Your task to perform on an android device: snooze an email in the gmail app Image 0: 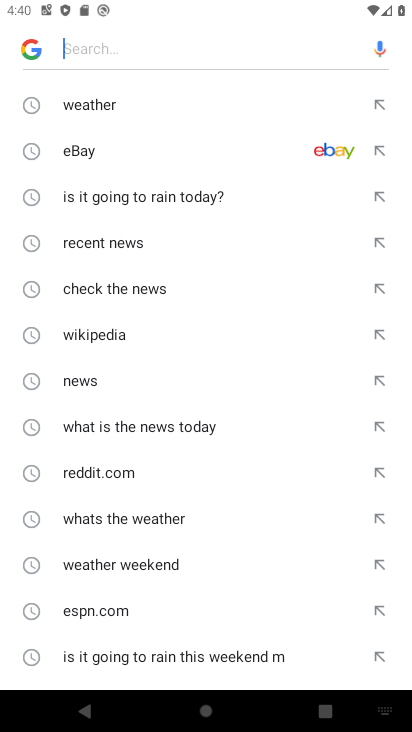
Step 0: press home button
Your task to perform on an android device: snooze an email in the gmail app Image 1: 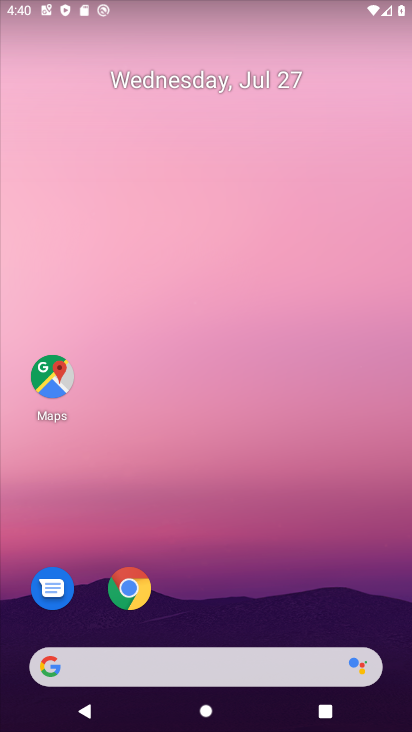
Step 1: drag from (250, 665) to (245, 138)
Your task to perform on an android device: snooze an email in the gmail app Image 2: 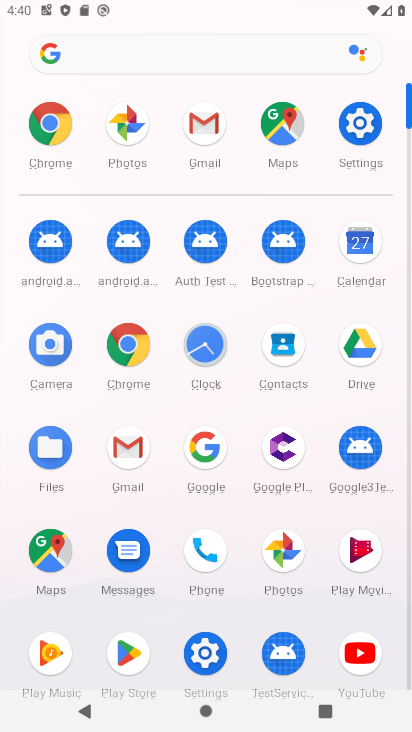
Step 2: click (139, 448)
Your task to perform on an android device: snooze an email in the gmail app Image 3: 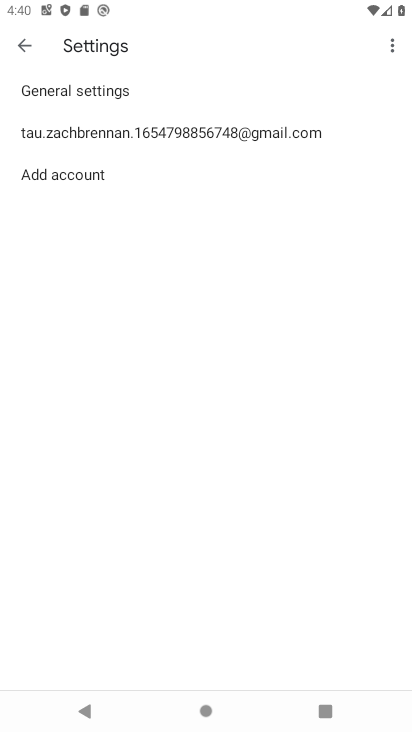
Step 3: click (26, 40)
Your task to perform on an android device: snooze an email in the gmail app Image 4: 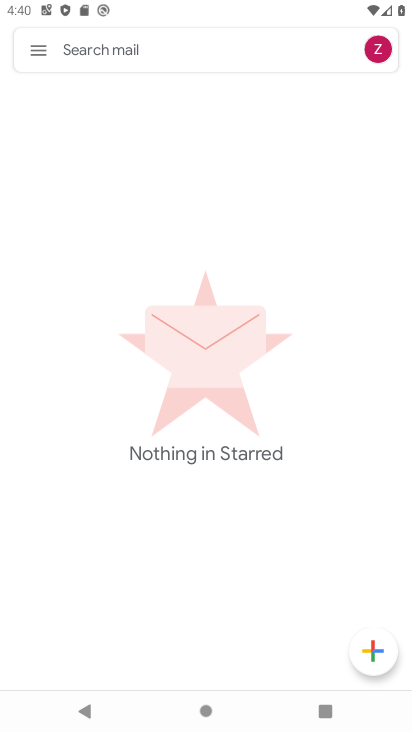
Step 4: click (35, 47)
Your task to perform on an android device: snooze an email in the gmail app Image 5: 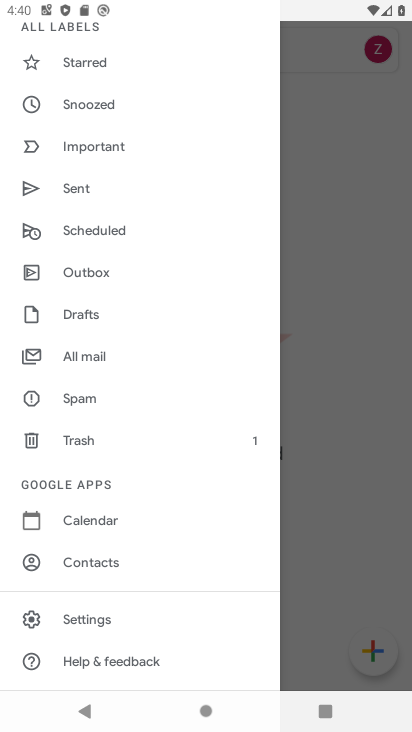
Step 5: drag from (112, 70) to (111, 408)
Your task to perform on an android device: snooze an email in the gmail app Image 6: 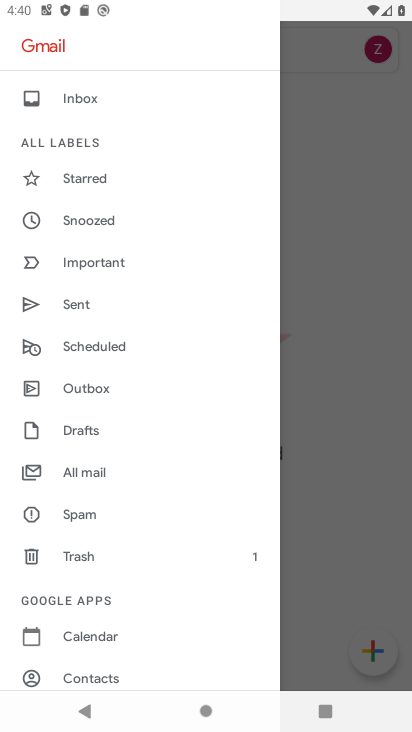
Step 6: click (85, 96)
Your task to perform on an android device: snooze an email in the gmail app Image 7: 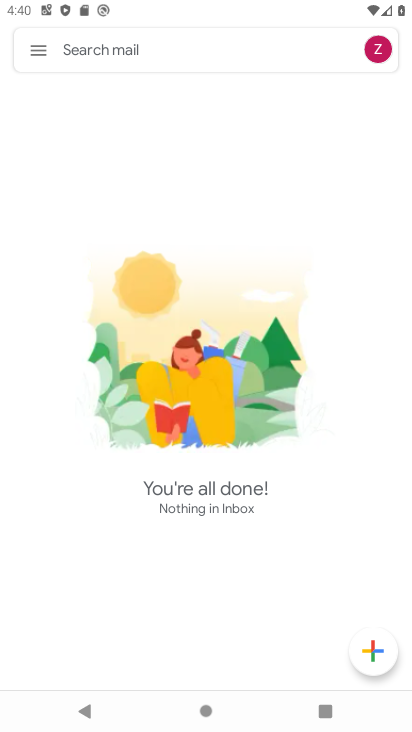
Step 7: task complete